Your task to perform on an android device: open sync settings in chrome Image 0: 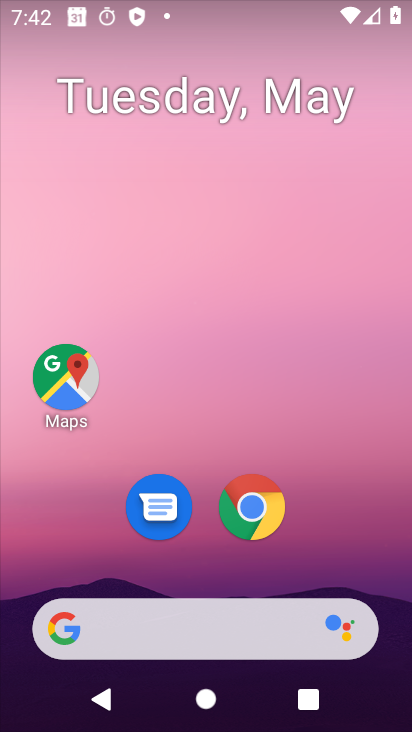
Step 0: click (246, 516)
Your task to perform on an android device: open sync settings in chrome Image 1: 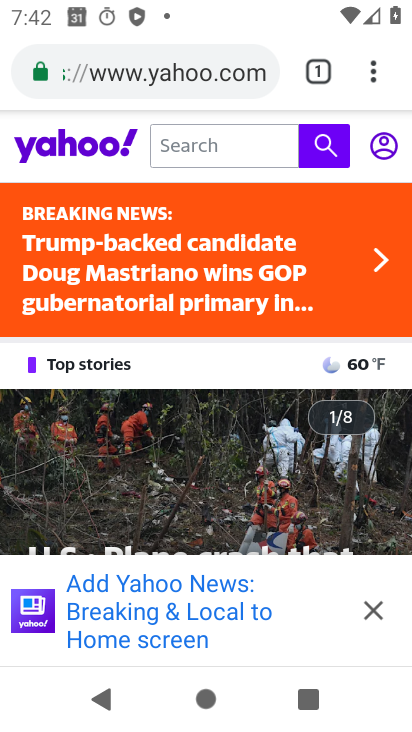
Step 1: click (372, 76)
Your task to perform on an android device: open sync settings in chrome Image 2: 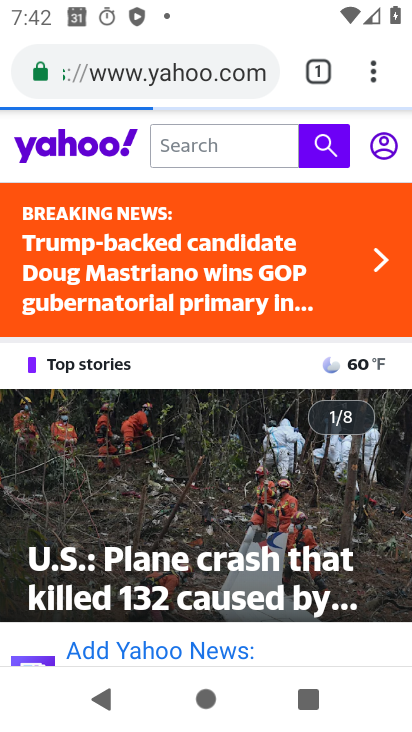
Step 2: click (371, 77)
Your task to perform on an android device: open sync settings in chrome Image 3: 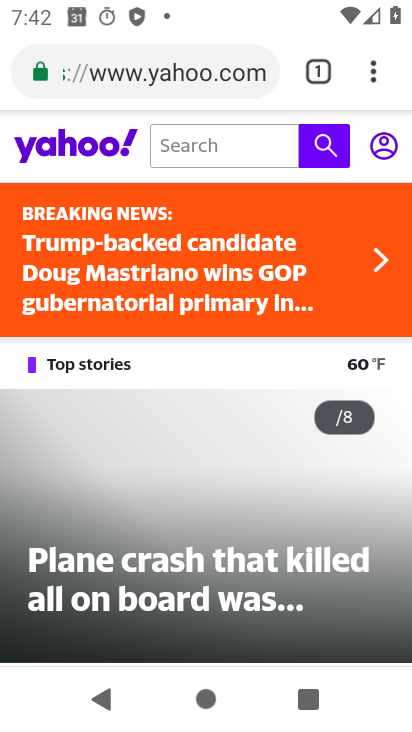
Step 3: click (371, 77)
Your task to perform on an android device: open sync settings in chrome Image 4: 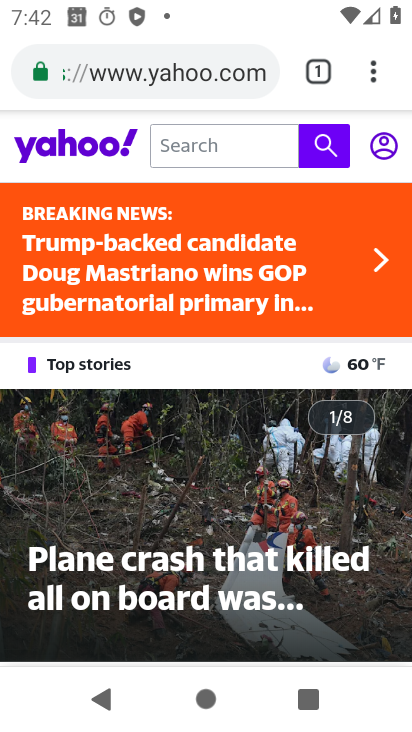
Step 4: click (371, 78)
Your task to perform on an android device: open sync settings in chrome Image 5: 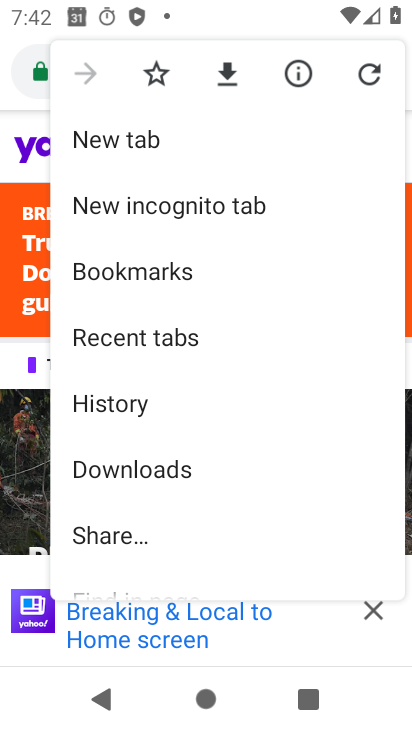
Step 5: drag from (302, 452) to (236, 214)
Your task to perform on an android device: open sync settings in chrome Image 6: 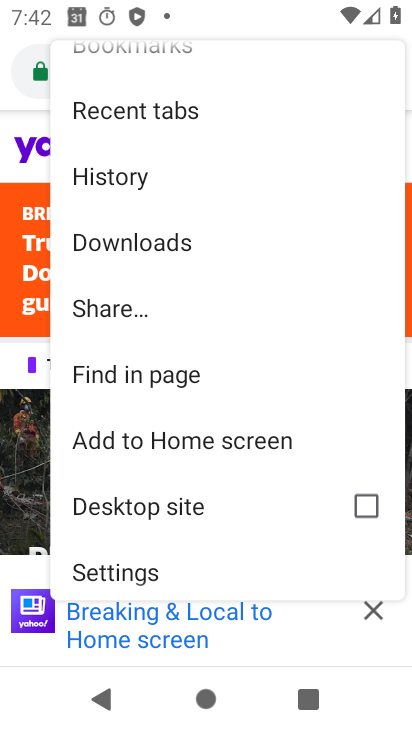
Step 6: click (263, 560)
Your task to perform on an android device: open sync settings in chrome Image 7: 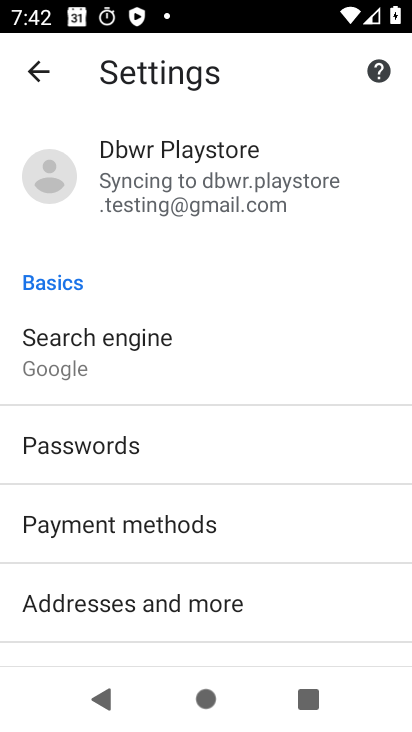
Step 7: click (153, 204)
Your task to perform on an android device: open sync settings in chrome Image 8: 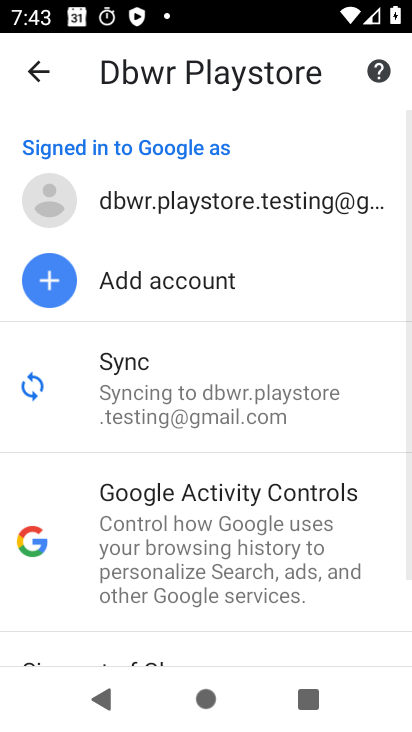
Step 8: click (179, 405)
Your task to perform on an android device: open sync settings in chrome Image 9: 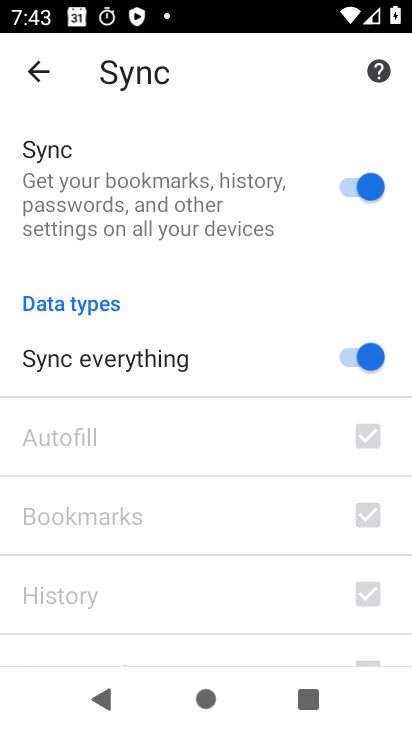
Step 9: task complete